Your task to perform on an android device: visit the assistant section in the google photos Image 0: 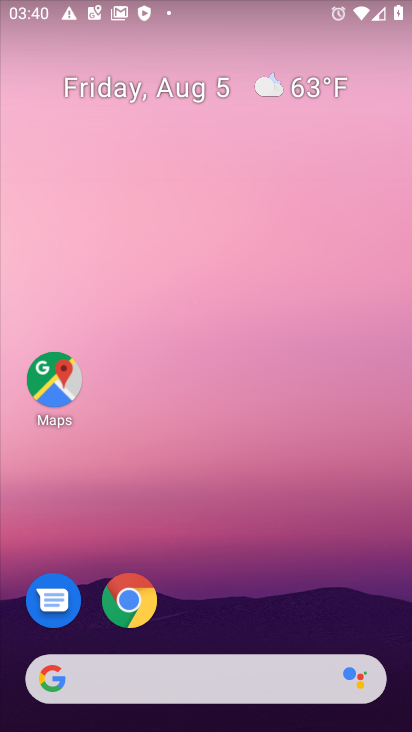
Step 0: drag from (198, 689) to (410, 121)
Your task to perform on an android device: visit the assistant section in the google photos Image 1: 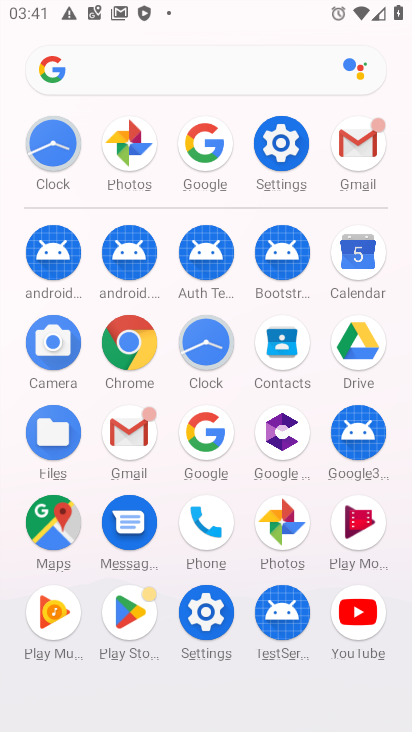
Step 1: click (130, 145)
Your task to perform on an android device: visit the assistant section in the google photos Image 2: 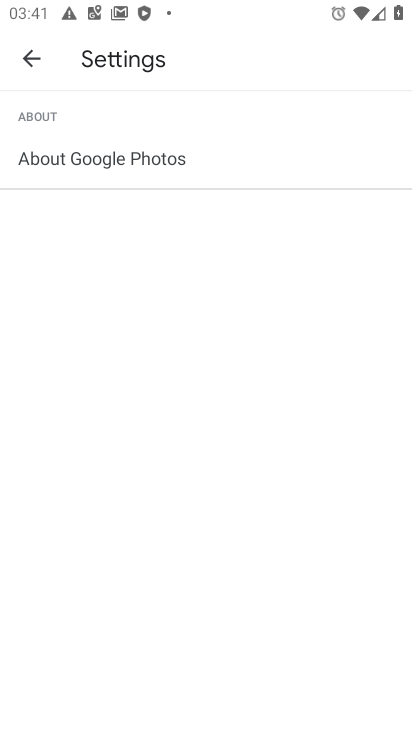
Step 2: press back button
Your task to perform on an android device: visit the assistant section in the google photos Image 3: 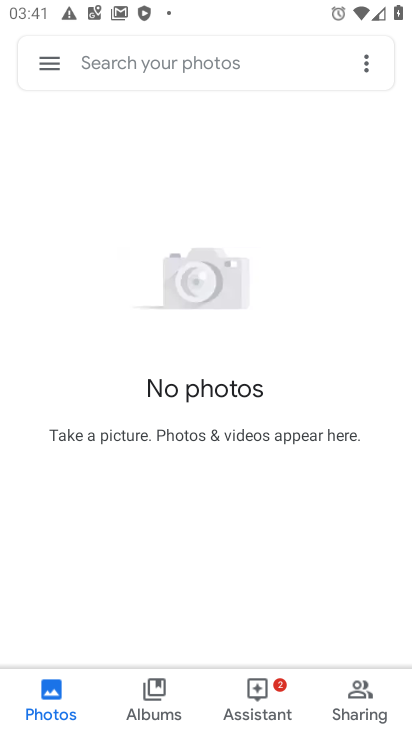
Step 3: click (256, 692)
Your task to perform on an android device: visit the assistant section in the google photos Image 4: 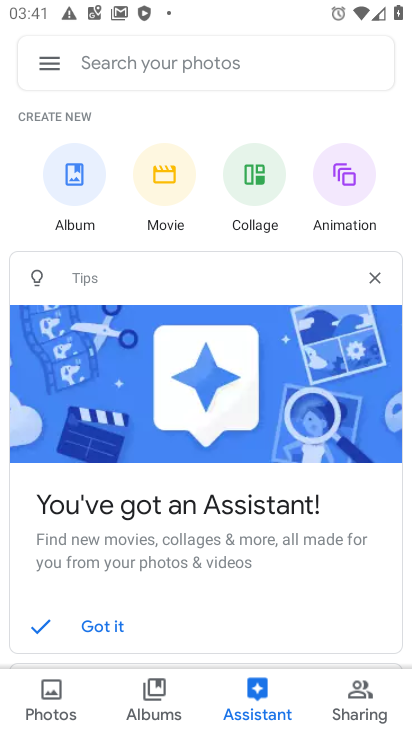
Step 4: task complete